Your task to perform on an android device: turn on data saver in the chrome app Image 0: 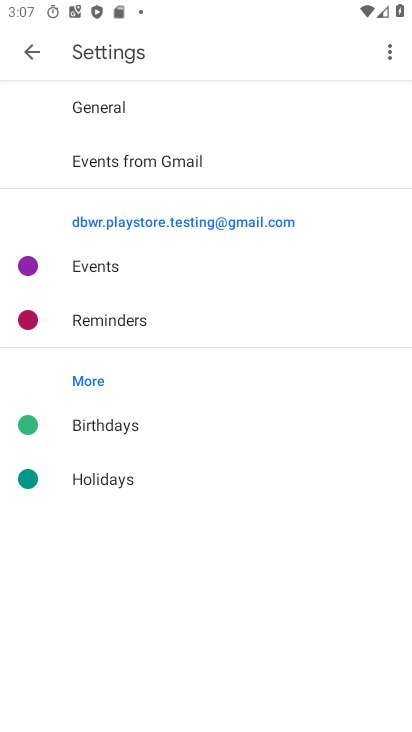
Step 0: press home button
Your task to perform on an android device: turn on data saver in the chrome app Image 1: 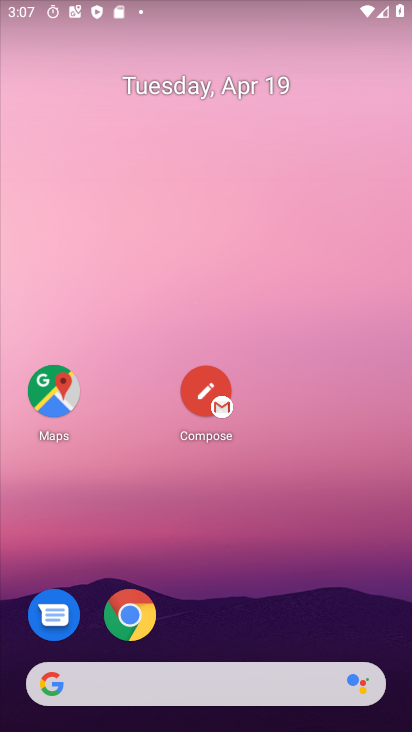
Step 1: drag from (264, 638) to (277, 24)
Your task to perform on an android device: turn on data saver in the chrome app Image 2: 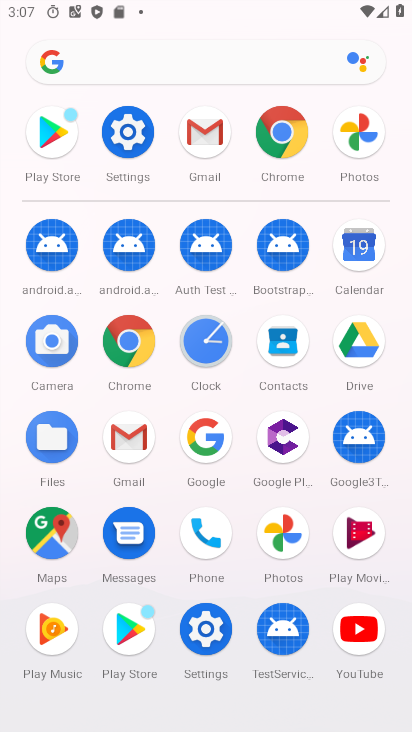
Step 2: click (143, 344)
Your task to perform on an android device: turn on data saver in the chrome app Image 3: 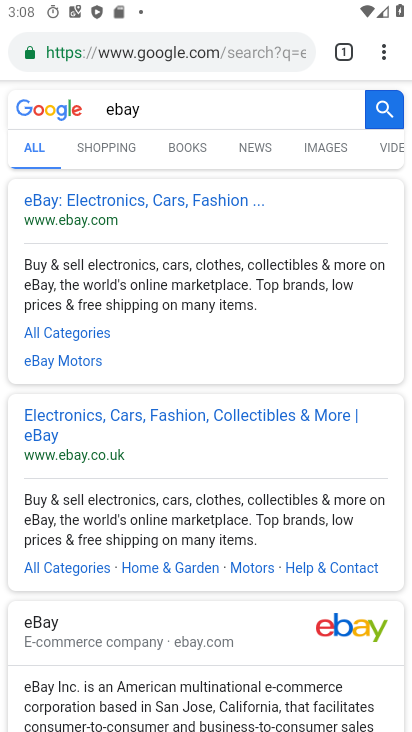
Step 3: click (380, 48)
Your task to perform on an android device: turn on data saver in the chrome app Image 4: 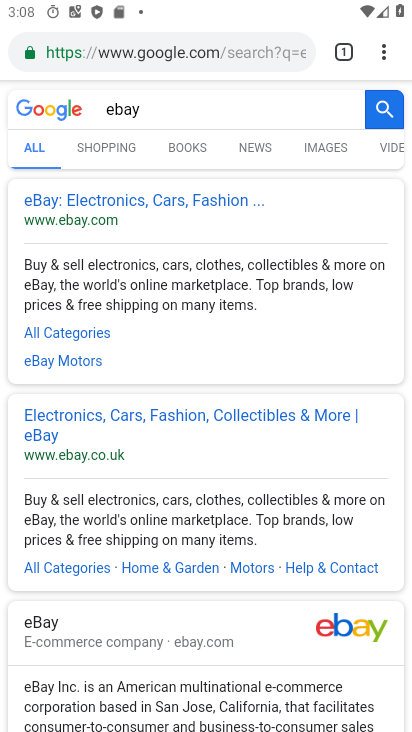
Step 4: click (376, 47)
Your task to perform on an android device: turn on data saver in the chrome app Image 5: 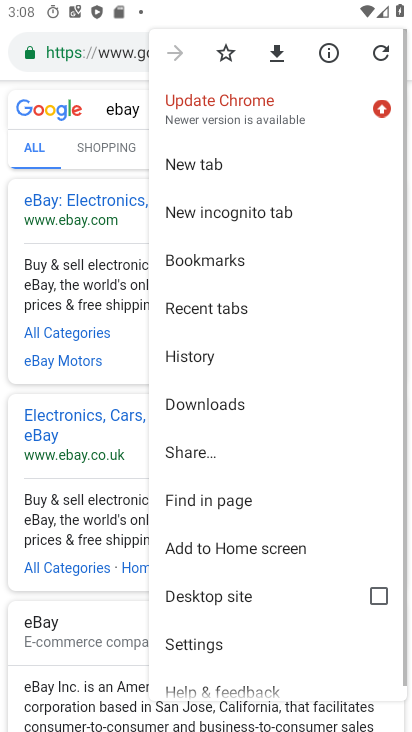
Step 5: drag from (303, 574) to (309, 44)
Your task to perform on an android device: turn on data saver in the chrome app Image 6: 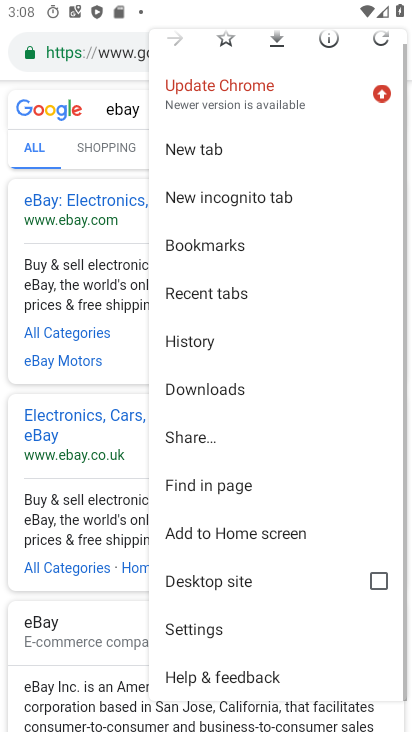
Step 6: click (235, 627)
Your task to perform on an android device: turn on data saver in the chrome app Image 7: 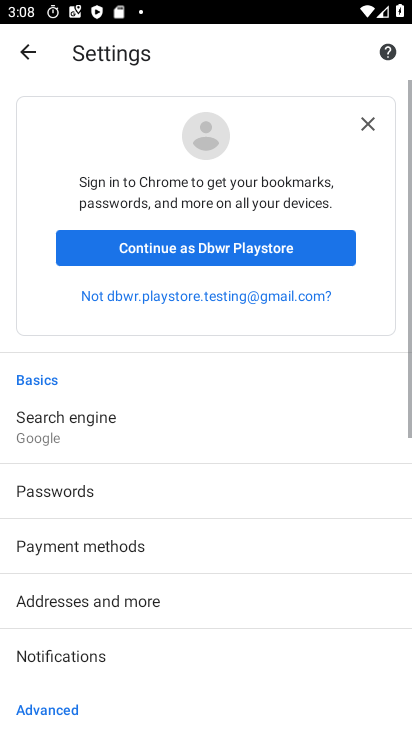
Step 7: drag from (213, 613) to (204, 93)
Your task to perform on an android device: turn on data saver in the chrome app Image 8: 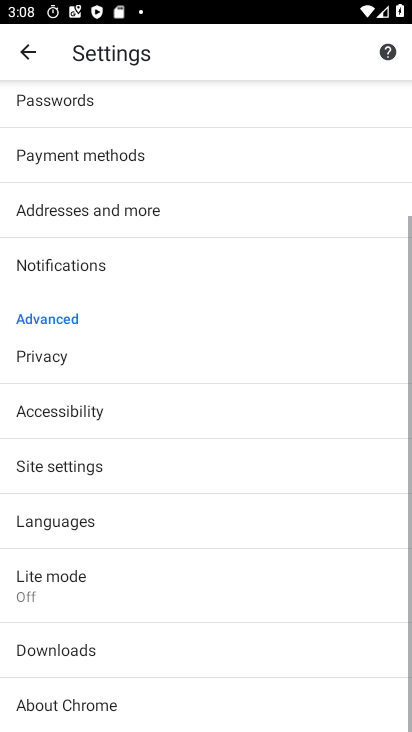
Step 8: drag from (204, 657) to (225, 327)
Your task to perform on an android device: turn on data saver in the chrome app Image 9: 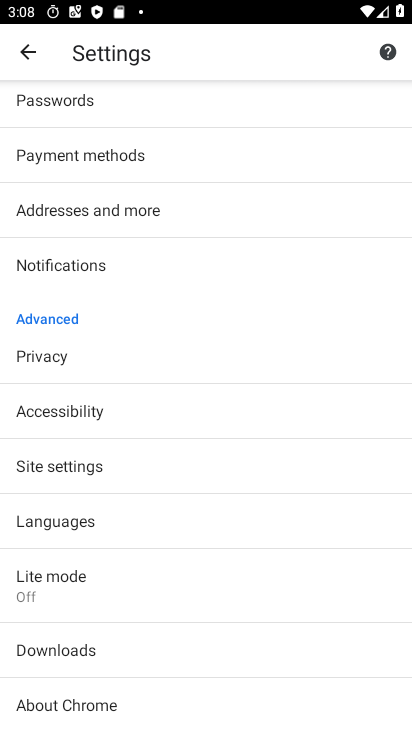
Step 9: click (66, 524)
Your task to perform on an android device: turn on data saver in the chrome app Image 10: 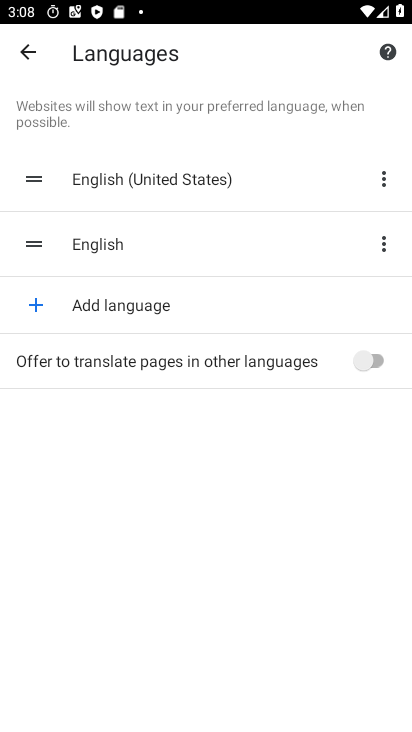
Step 10: click (377, 361)
Your task to perform on an android device: turn on data saver in the chrome app Image 11: 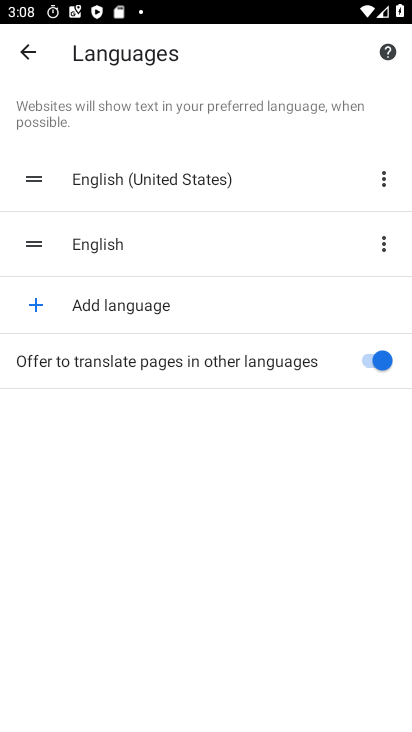
Step 11: task complete